Your task to perform on an android device: change alarm snooze length Image 0: 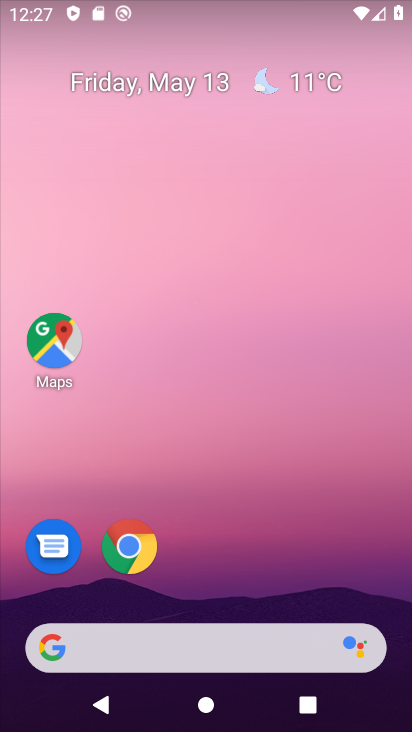
Step 0: drag from (243, 449) to (306, 124)
Your task to perform on an android device: change alarm snooze length Image 1: 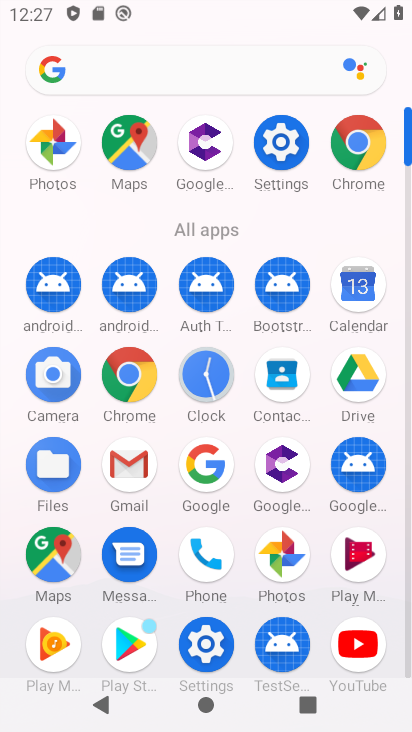
Step 1: click (223, 386)
Your task to perform on an android device: change alarm snooze length Image 2: 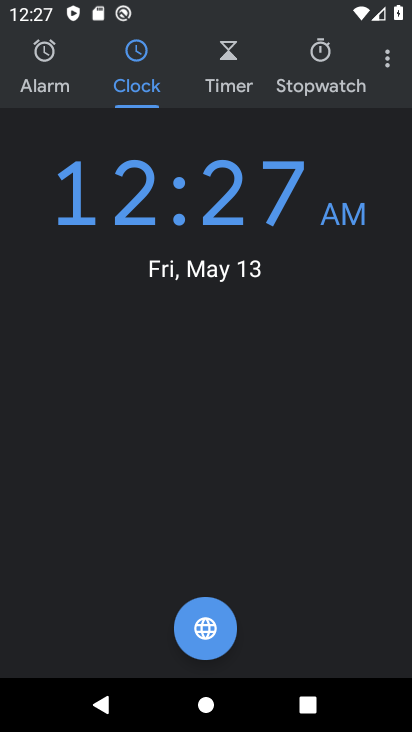
Step 2: click (396, 62)
Your task to perform on an android device: change alarm snooze length Image 3: 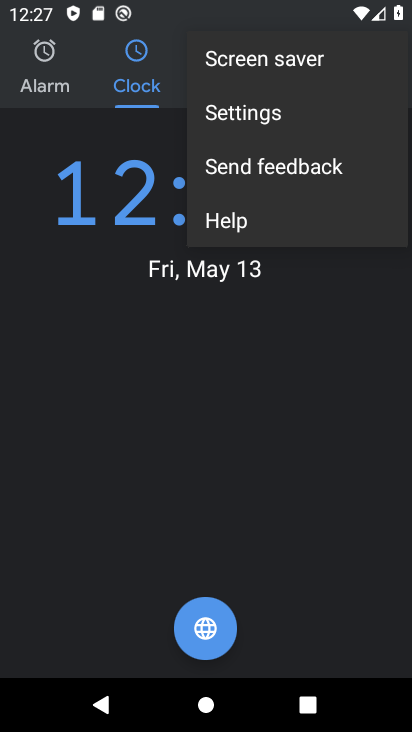
Step 3: click (268, 113)
Your task to perform on an android device: change alarm snooze length Image 4: 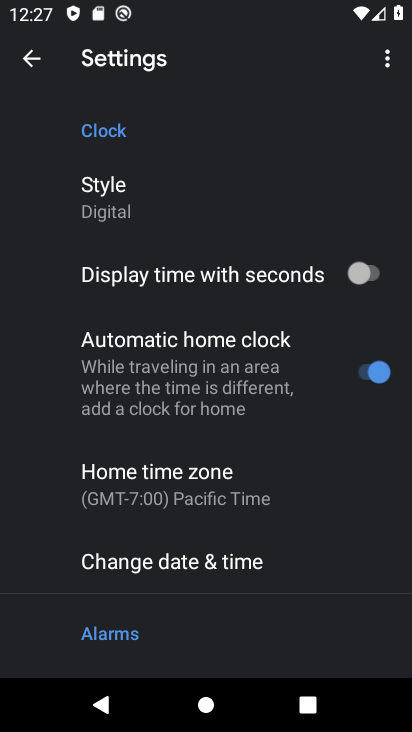
Step 4: drag from (219, 549) to (234, 258)
Your task to perform on an android device: change alarm snooze length Image 5: 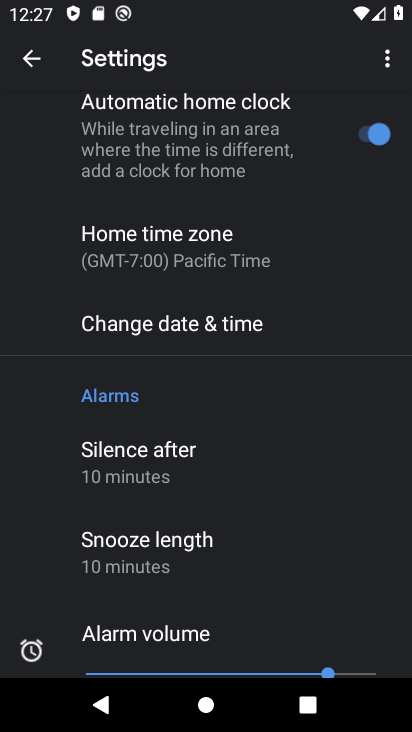
Step 5: click (249, 530)
Your task to perform on an android device: change alarm snooze length Image 6: 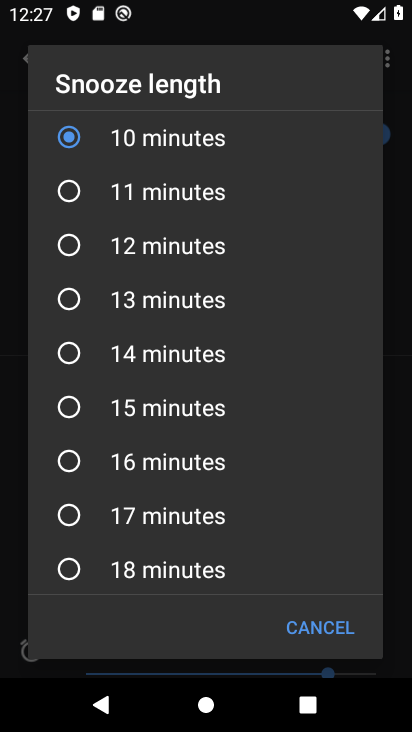
Step 6: click (61, 255)
Your task to perform on an android device: change alarm snooze length Image 7: 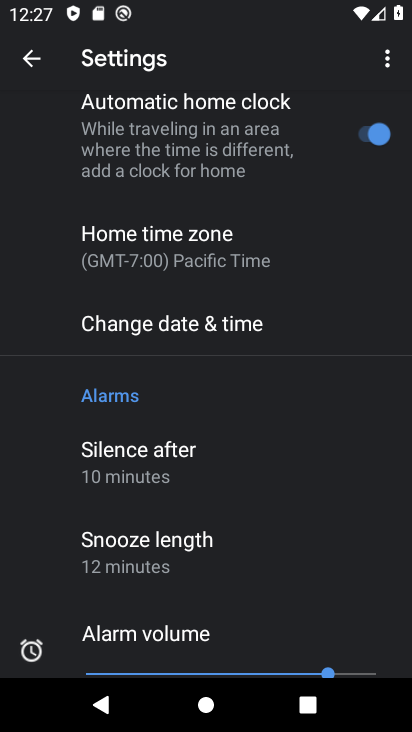
Step 7: task complete